Your task to perform on an android device: change timer sound Image 0: 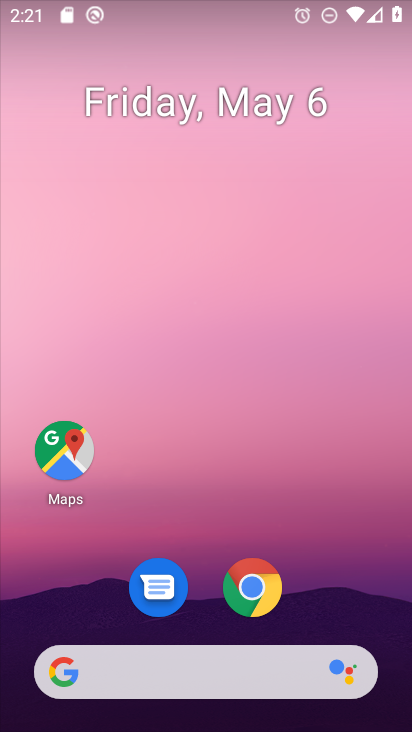
Step 0: drag from (333, 578) to (332, 41)
Your task to perform on an android device: change timer sound Image 1: 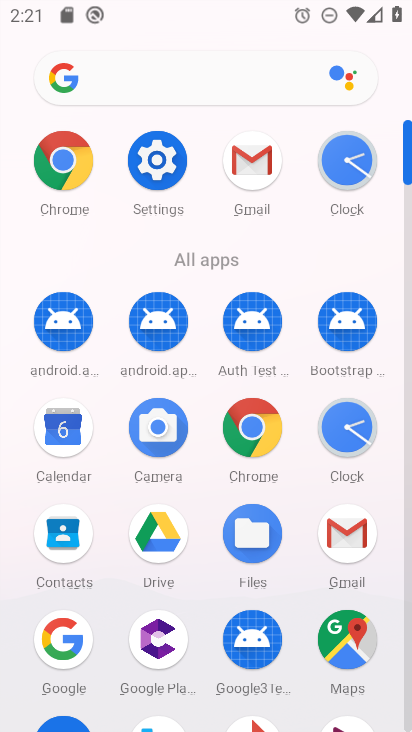
Step 1: click (345, 163)
Your task to perform on an android device: change timer sound Image 2: 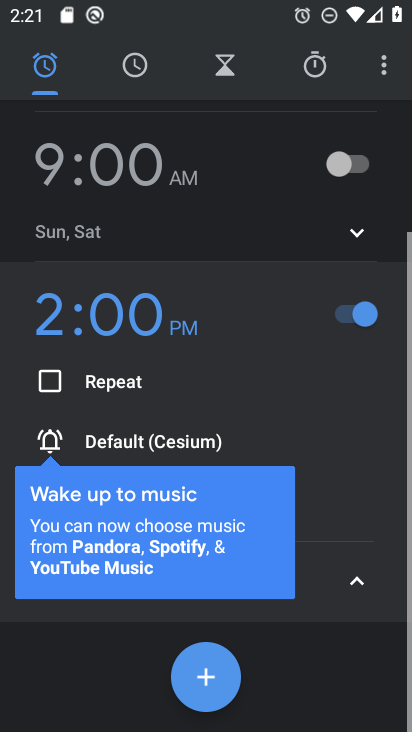
Step 2: click (381, 63)
Your task to perform on an android device: change timer sound Image 3: 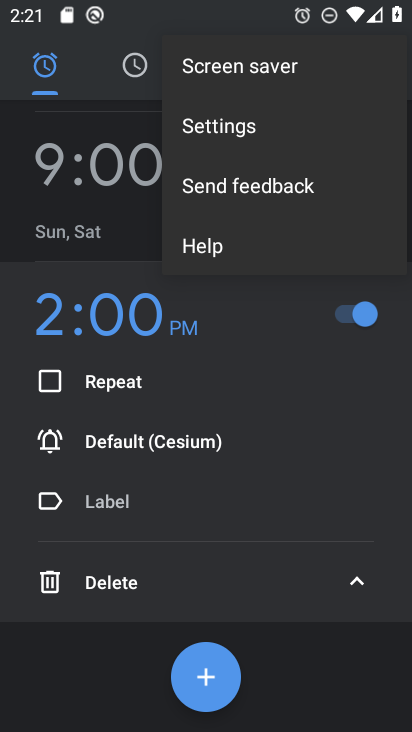
Step 3: click (291, 134)
Your task to perform on an android device: change timer sound Image 4: 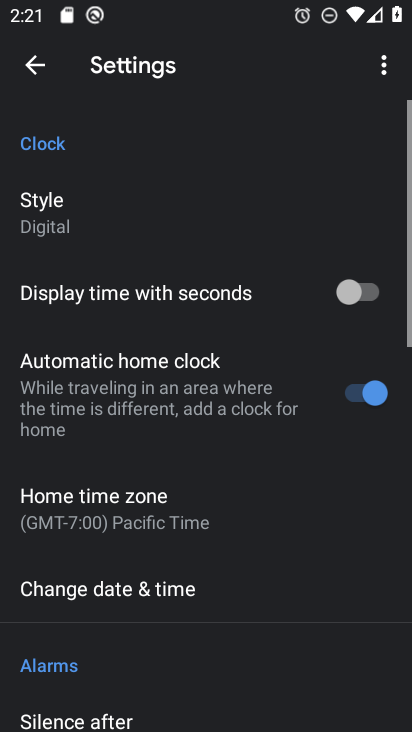
Step 4: drag from (266, 530) to (282, 94)
Your task to perform on an android device: change timer sound Image 5: 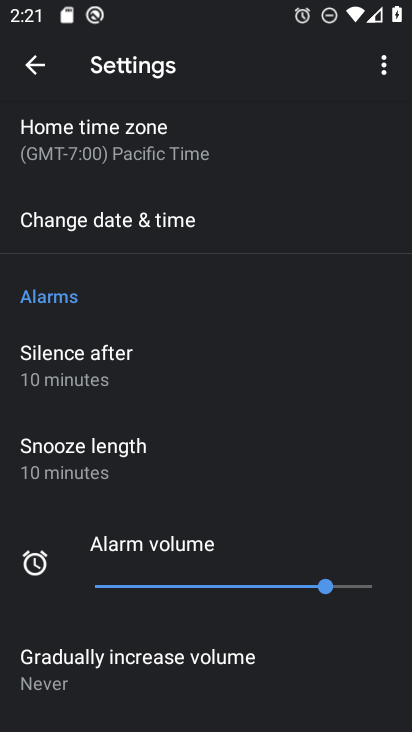
Step 5: drag from (190, 518) to (215, 99)
Your task to perform on an android device: change timer sound Image 6: 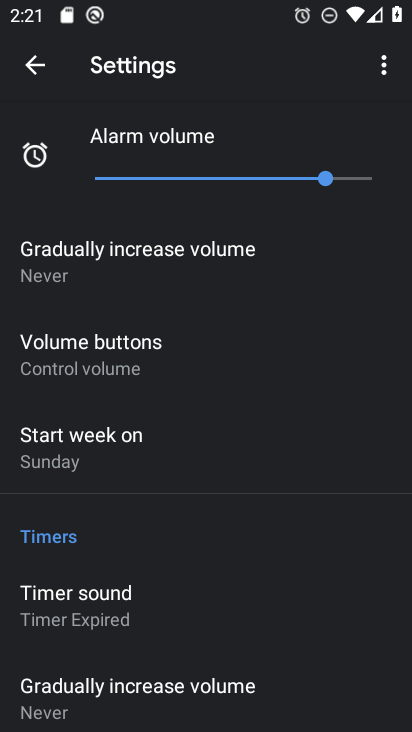
Step 6: drag from (207, 545) to (235, 334)
Your task to perform on an android device: change timer sound Image 7: 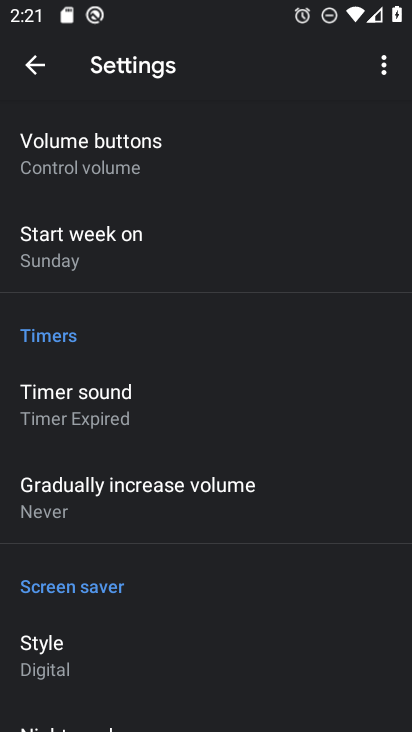
Step 7: click (135, 410)
Your task to perform on an android device: change timer sound Image 8: 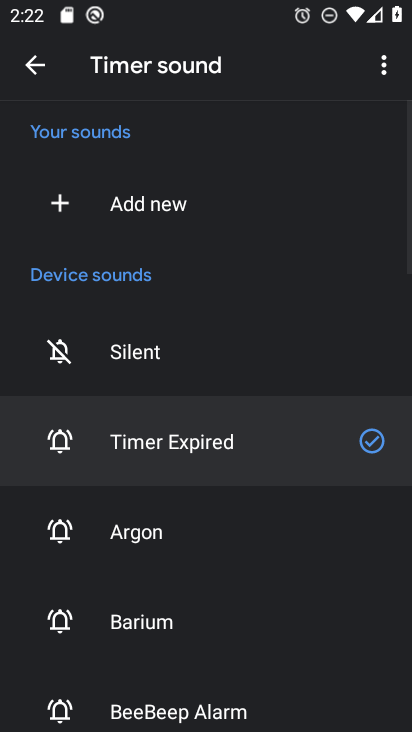
Step 8: click (114, 547)
Your task to perform on an android device: change timer sound Image 9: 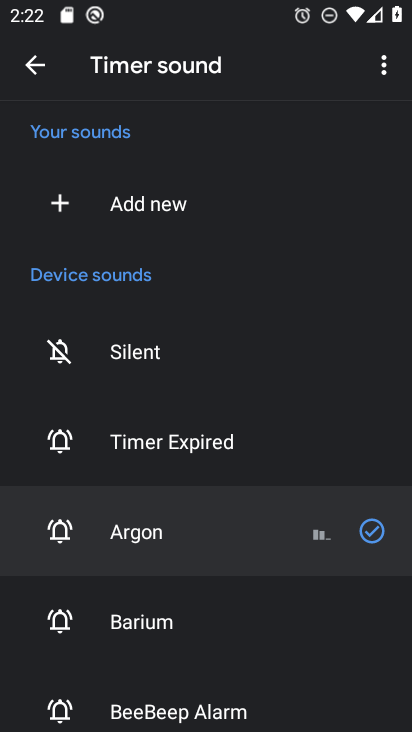
Step 9: task complete